Your task to perform on an android device: change the clock display to analog Image 0: 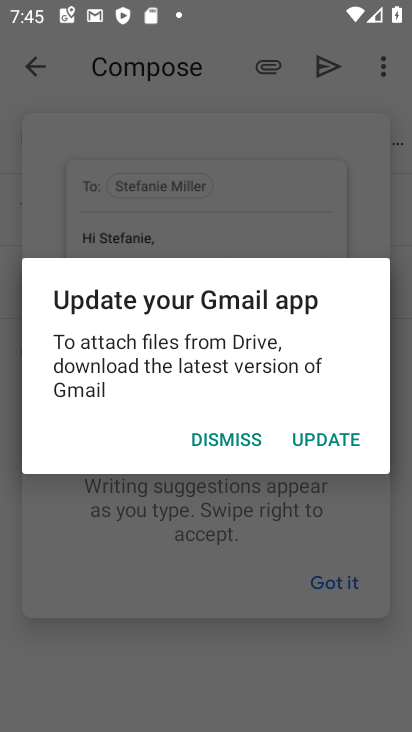
Step 0: press home button
Your task to perform on an android device: change the clock display to analog Image 1: 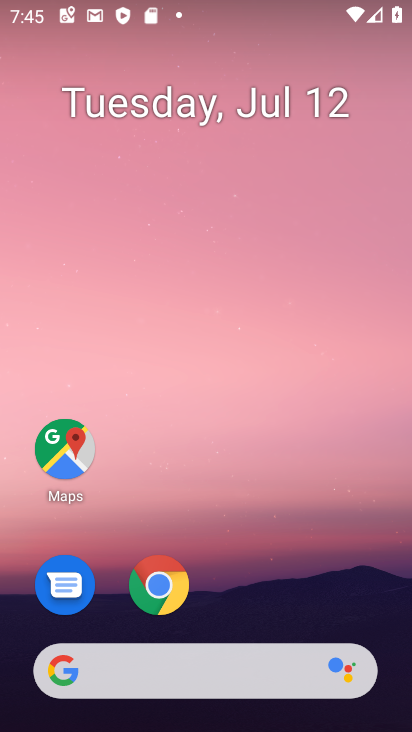
Step 1: drag from (257, 558) to (272, 48)
Your task to perform on an android device: change the clock display to analog Image 2: 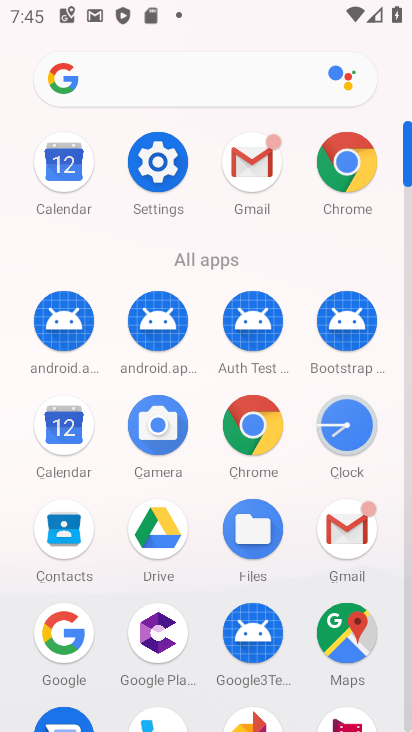
Step 2: click (354, 432)
Your task to perform on an android device: change the clock display to analog Image 3: 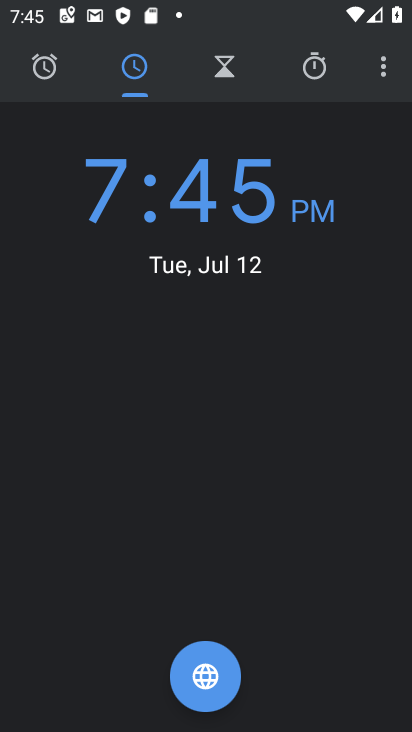
Step 3: click (380, 69)
Your task to perform on an android device: change the clock display to analog Image 4: 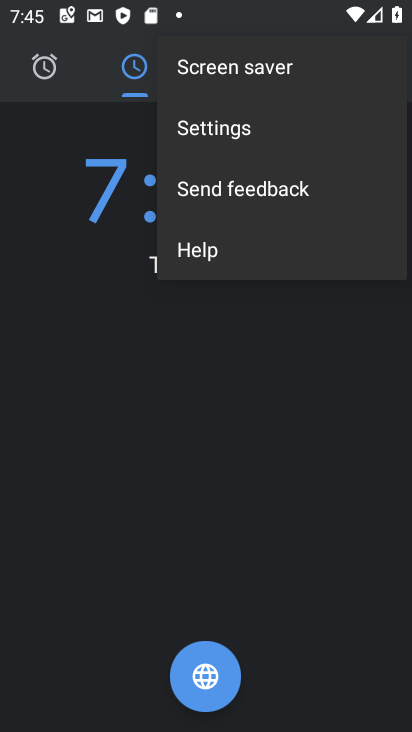
Step 4: click (246, 126)
Your task to perform on an android device: change the clock display to analog Image 5: 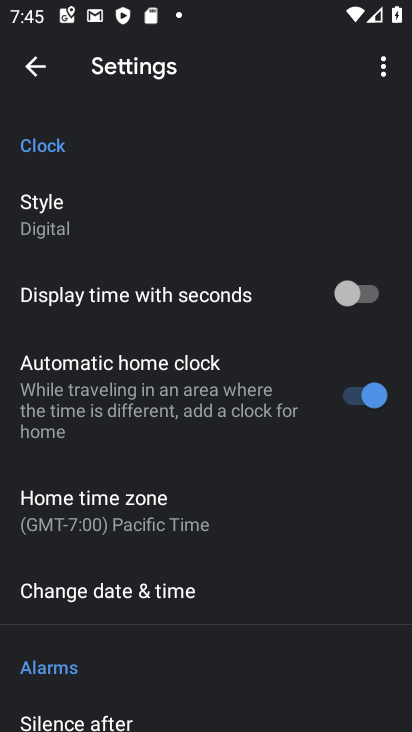
Step 5: click (49, 222)
Your task to perform on an android device: change the clock display to analog Image 6: 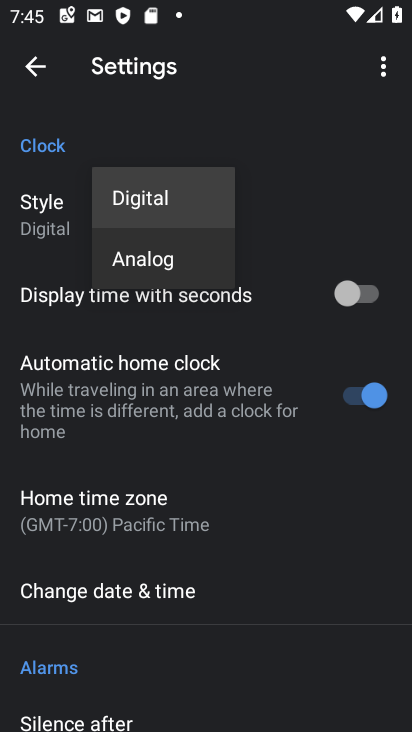
Step 6: click (125, 256)
Your task to perform on an android device: change the clock display to analog Image 7: 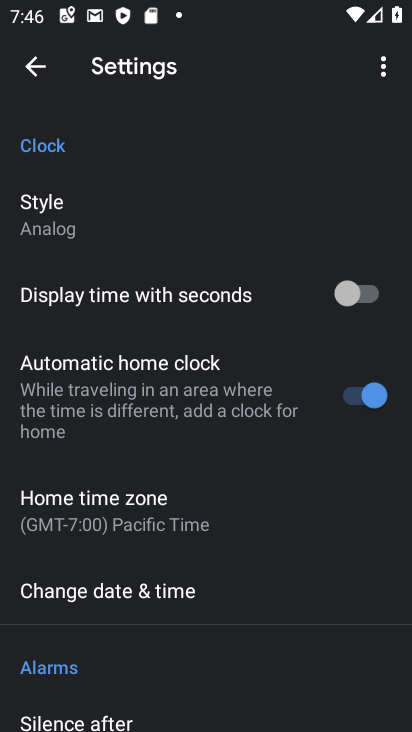
Step 7: task complete